Your task to perform on an android device: clear all cookies in the chrome app Image 0: 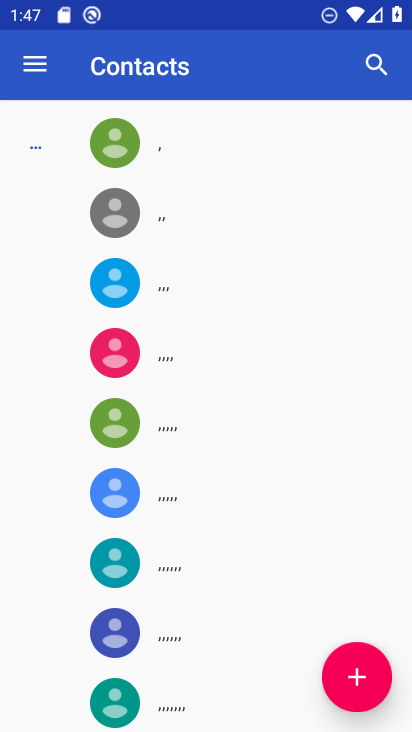
Step 0: press home button
Your task to perform on an android device: clear all cookies in the chrome app Image 1: 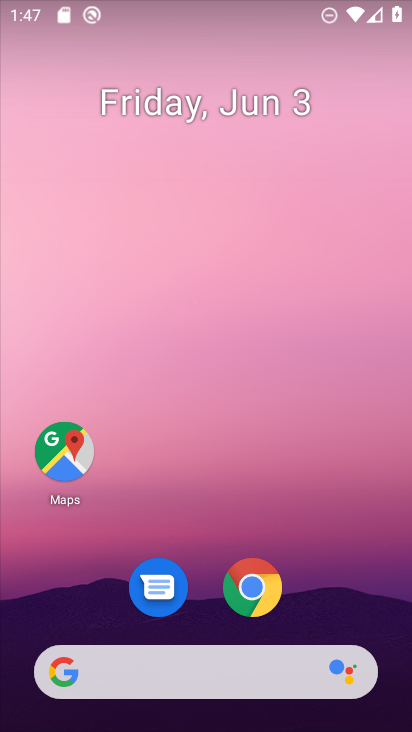
Step 1: click (258, 590)
Your task to perform on an android device: clear all cookies in the chrome app Image 2: 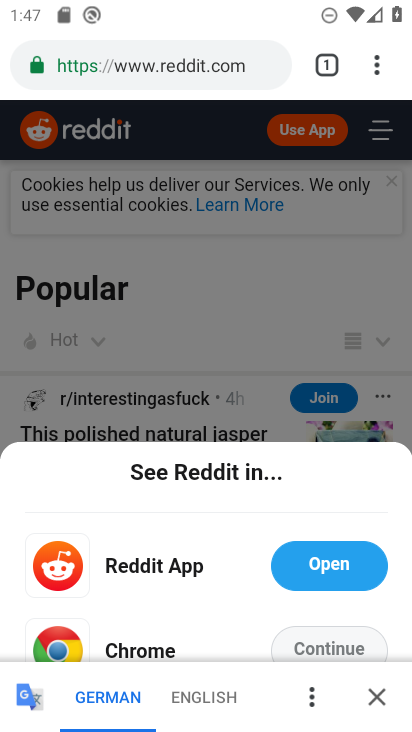
Step 2: click (369, 64)
Your task to perform on an android device: clear all cookies in the chrome app Image 3: 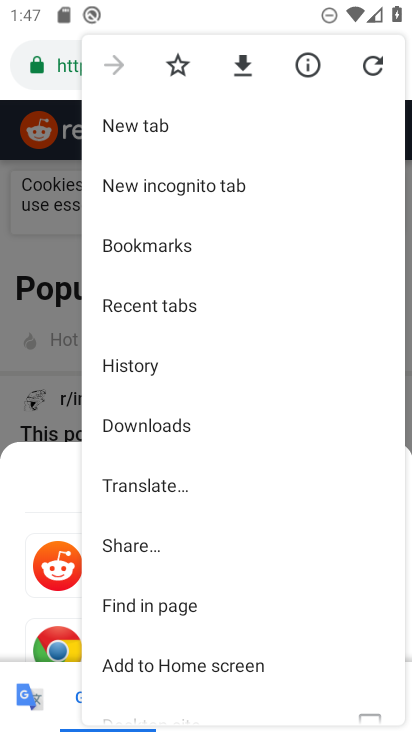
Step 3: click (171, 373)
Your task to perform on an android device: clear all cookies in the chrome app Image 4: 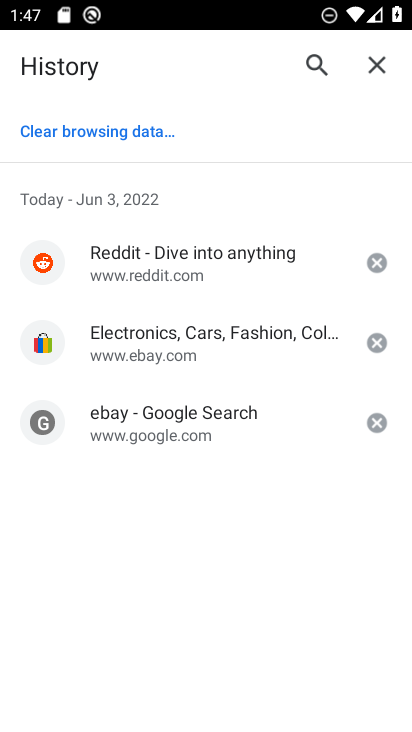
Step 4: click (97, 127)
Your task to perform on an android device: clear all cookies in the chrome app Image 5: 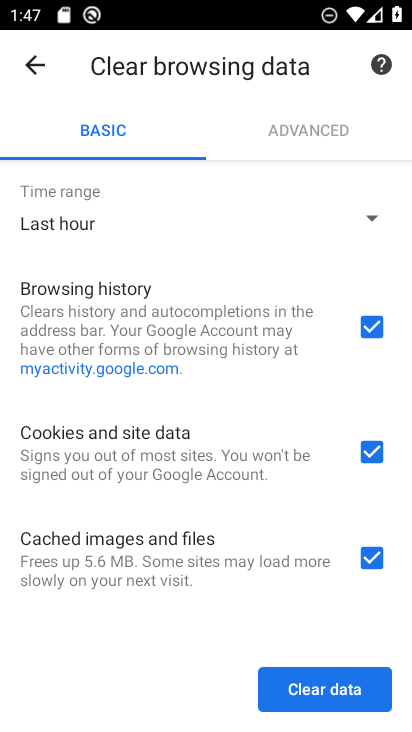
Step 5: click (277, 316)
Your task to perform on an android device: clear all cookies in the chrome app Image 6: 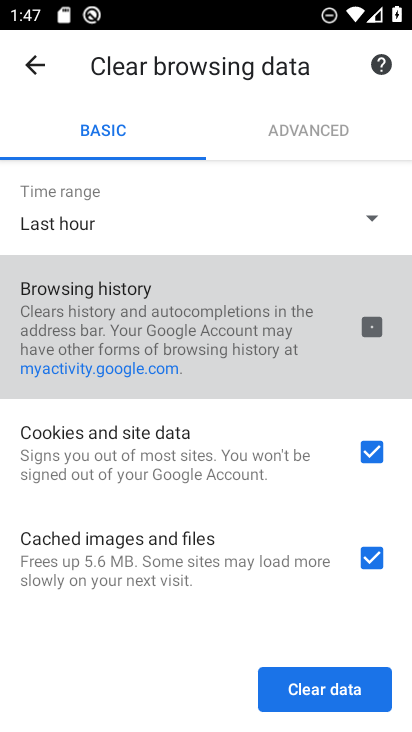
Step 6: click (304, 553)
Your task to perform on an android device: clear all cookies in the chrome app Image 7: 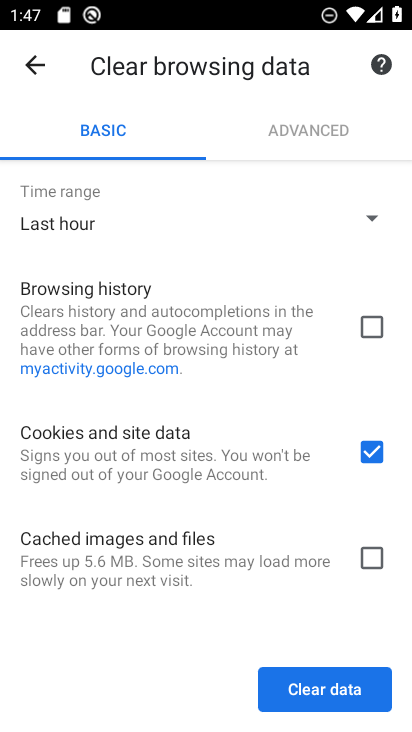
Step 7: click (337, 693)
Your task to perform on an android device: clear all cookies in the chrome app Image 8: 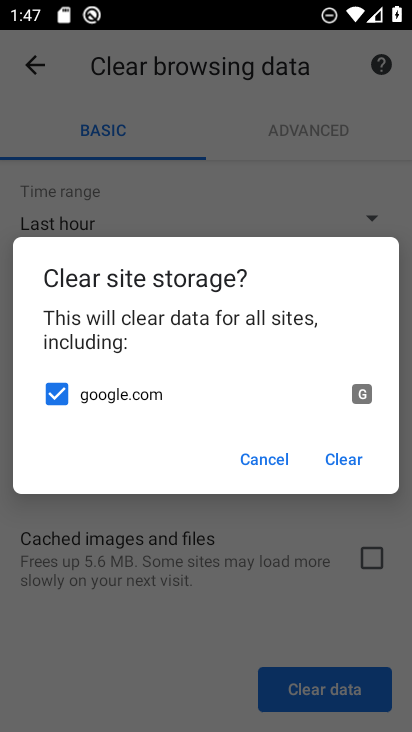
Step 8: click (338, 457)
Your task to perform on an android device: clear all cookies in the chrome app Image 9: 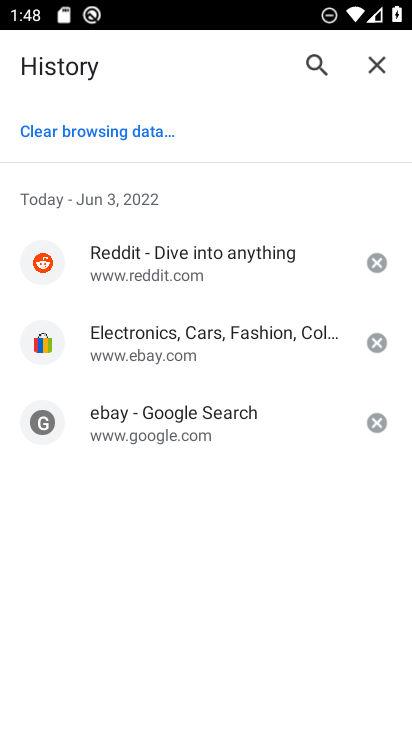
Step 9: task complete